Your task to perform on an android device: Go to Google Image 0: 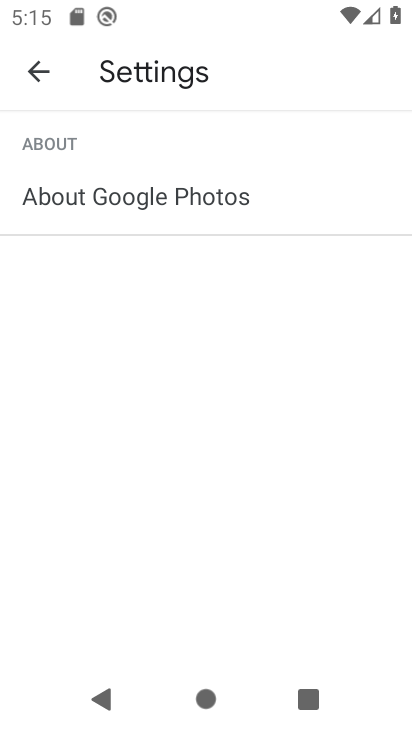
Step 0: press home button
Your task to perform on an android device: Go to Google Image 1: 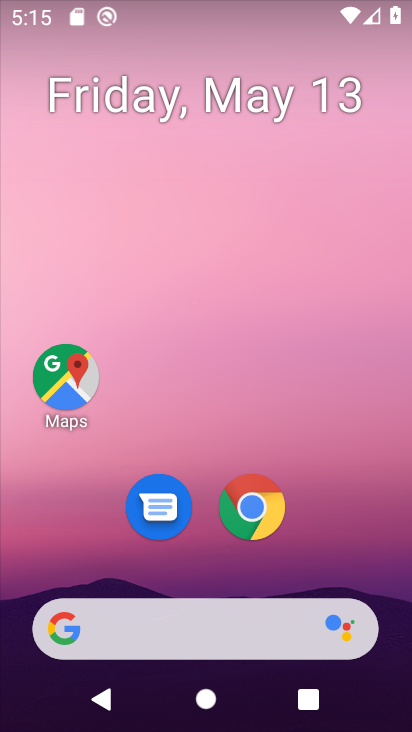
Step 1: drag from (356, 549) to (222, 87)
Your task to perform on an android device: Go to Google Image 2: 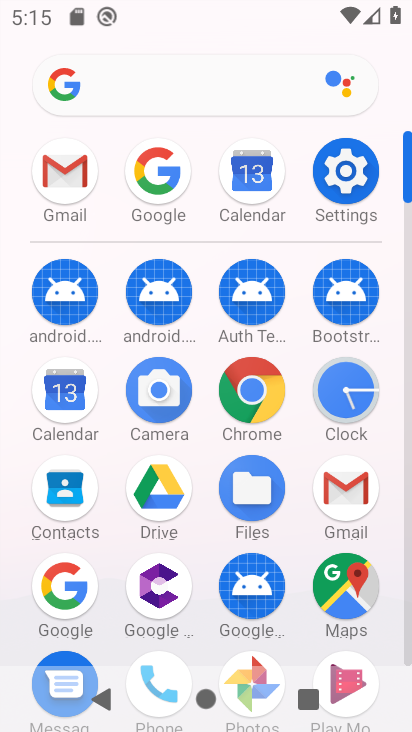
Step 2: click (66, 578)
Your task to perform on an android device: Go to Google Image 3: 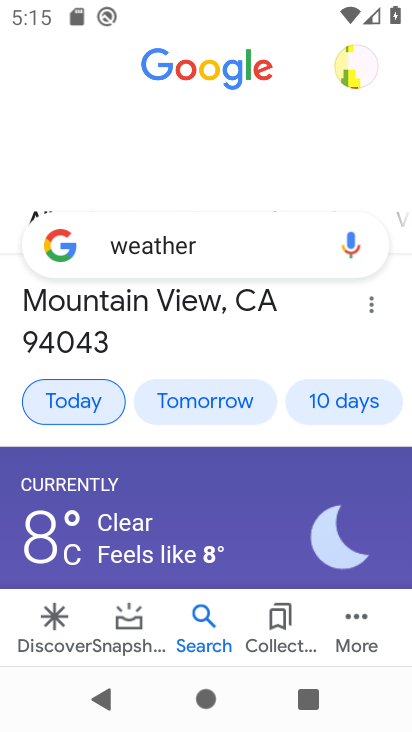
Step 3: task complete